Your task to perform on an android device: Open ESPN.com Image 0: 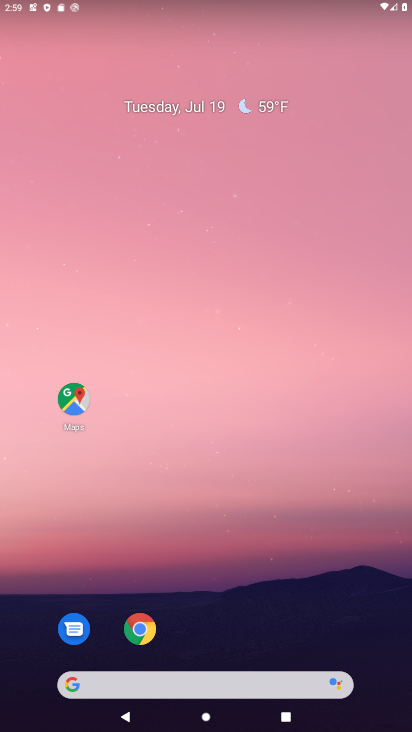
Step 0: click (121, 687)
Your task to perform on an android device: Open ESPN.com Image 1: 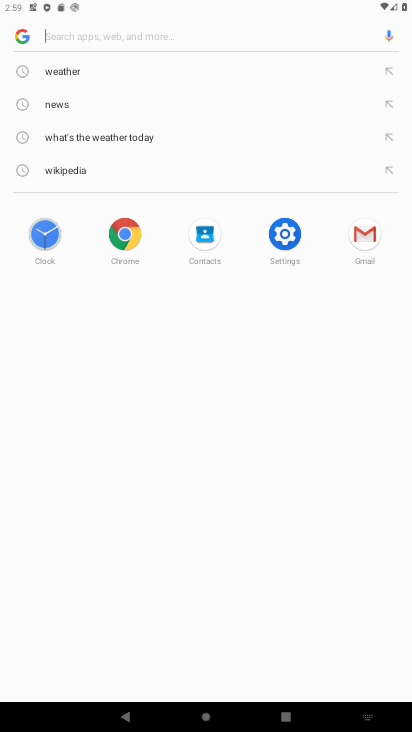
Step 1: type "espn"
Your task to perform on an android device: Open ESPN.com Image 2: 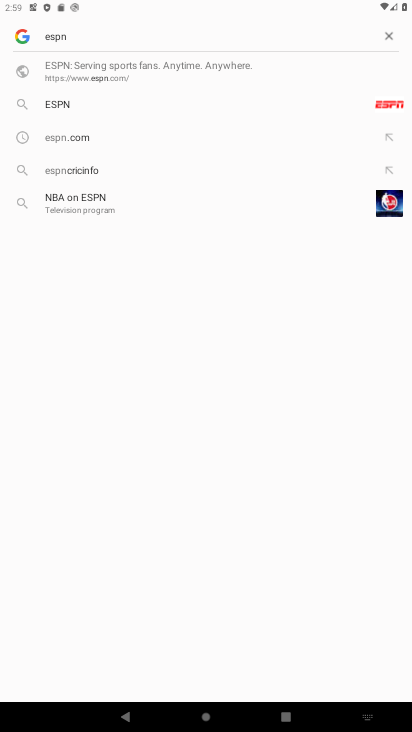
Step 2: click (75, 111)
Your task to perform on an android device: Open ESPN.com Image 3: 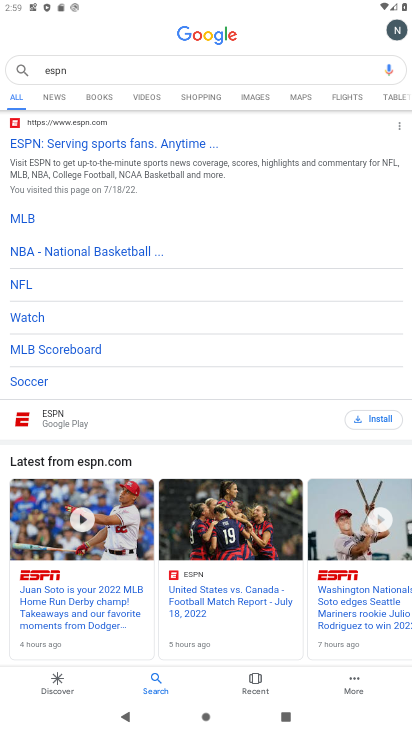
Step 3: click (123, 149)
Your task to perform on an android device: Open ESPN.com Image 4: 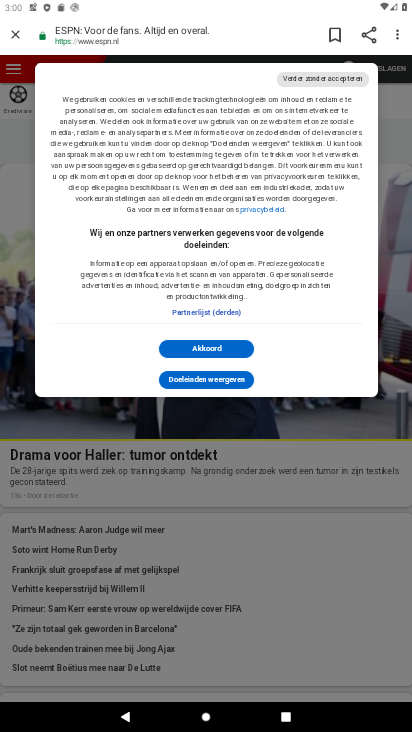
Step 4: task complete